Your task to perform on an android device: Show me popular videos on Youtube Image 0: 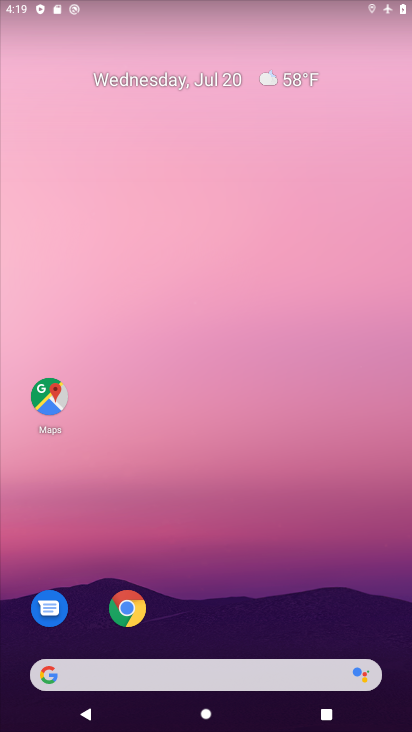
Step 0: drag from (245, 603) to (254, 97)
Your task to perform on an android device: Show me popular videos on Youtube Image 1: 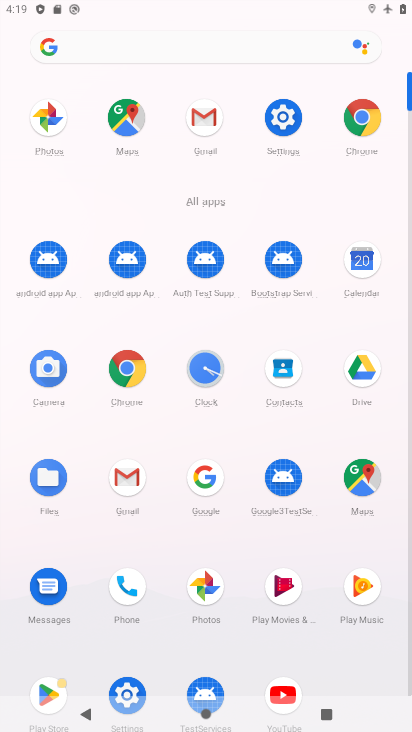
Step 1: click (294, 688)
Your task to perform on an android device: Show me popular videos on Youtube Image 2: 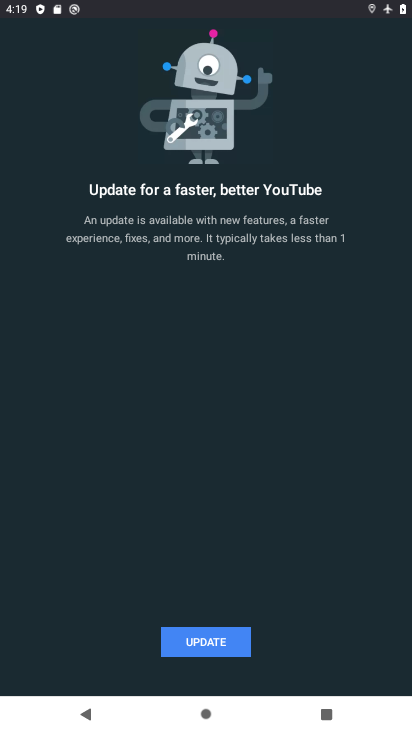
Step 2: click (218, 640)
Your task to perform on an android device: Show me popular videos on Youtube Image 3: 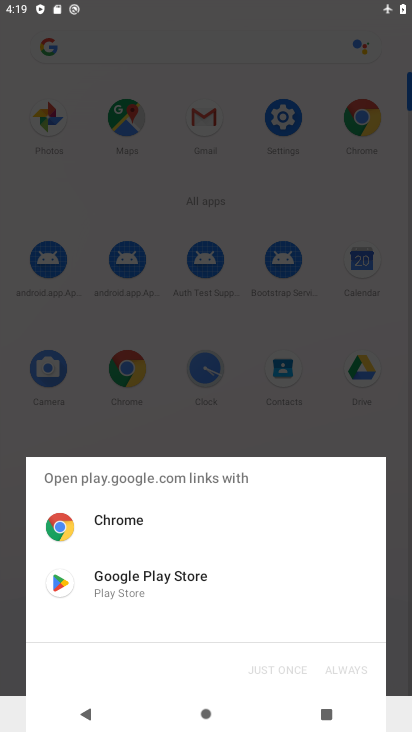
Step 3: click (230, 588)
Your task to perform on an android device: Show me popular videos on Youtube Image 4: 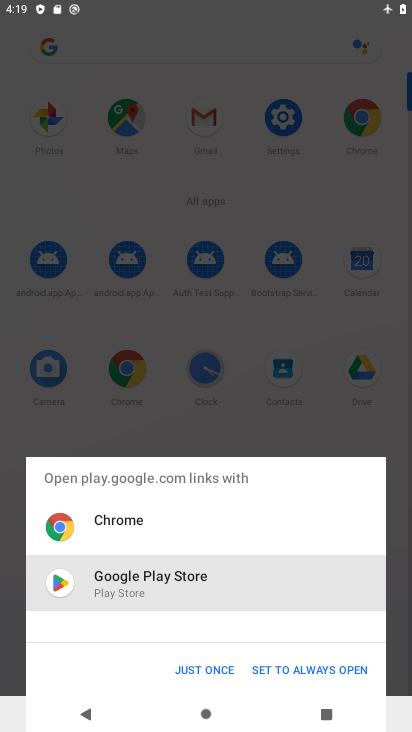
Step 4: click (216, 673)
Your task to perform on an android device: Show me popular videos on Youtube Image 5: 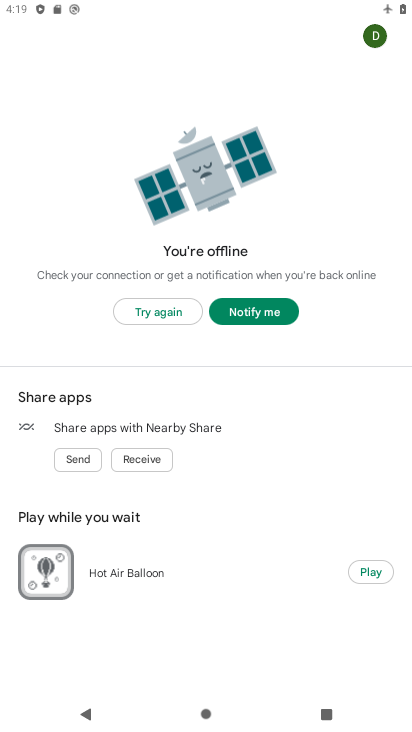
Step 5: task complete